Your task to perform on an android device: Add logitech g903 to the cart on amazon.com, then select checkout. Image 0: 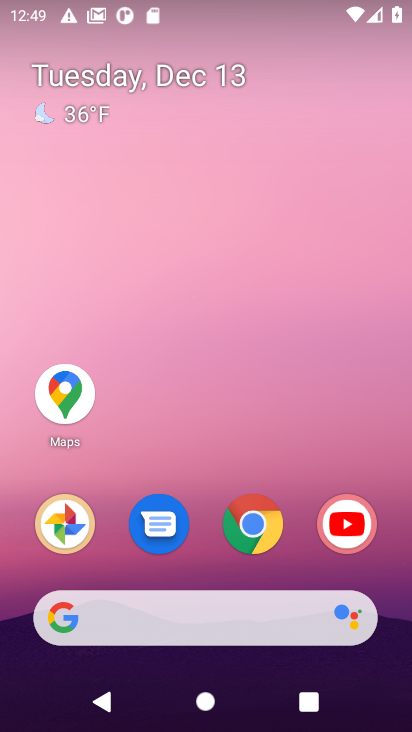
Step 0: click (257, 528)
Your task to perform on an android device: Add logitech g903 to the cart on amazon.com, then select checkout. Image 1: 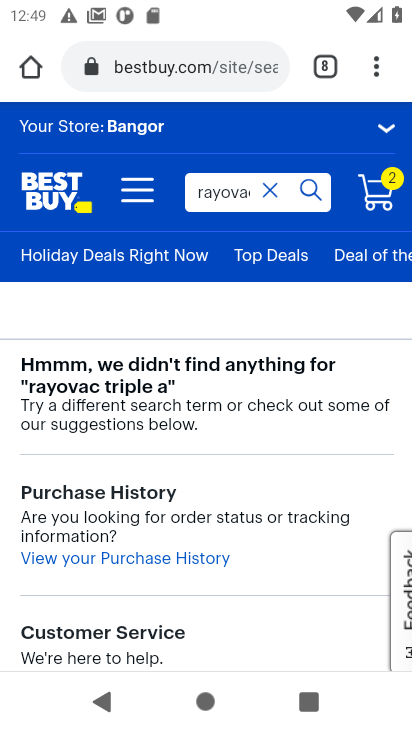
Step 1: click (146, 75)
Your task to perform on an android device: Add logitech g903 to the cart on amazon.com, then select checkout. Image 2: 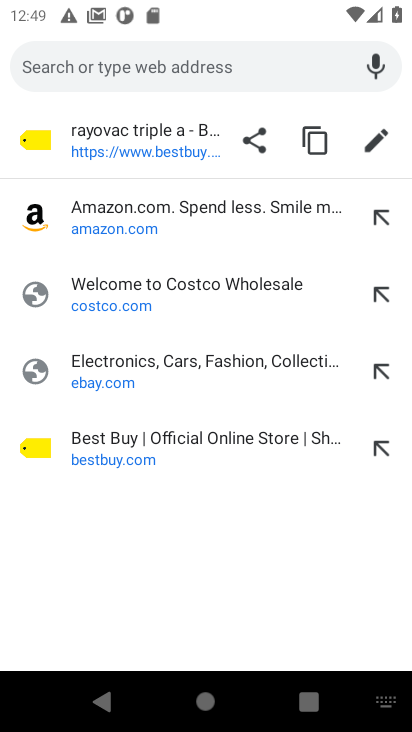
Step 2: click (98, 228)
Your task to perform on an android device: Add logitech g903 to the cart on amazon.com, then select checkout. Image 3: 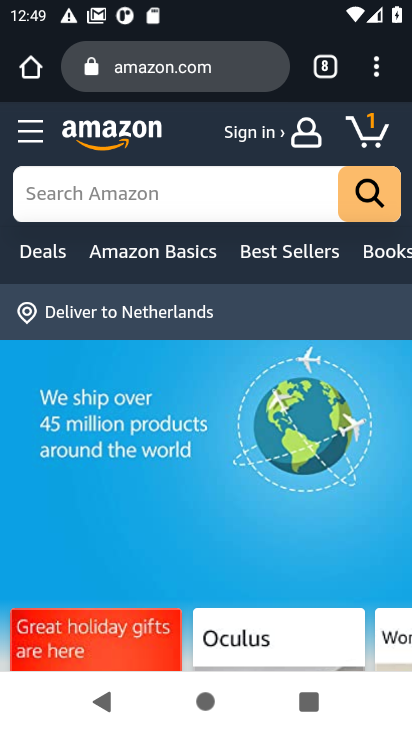
Step 3: click (76, 192)
Your task to perform on an android device: Add logitech g903 to the cart on amazon.com, then select checkout. Image 4: 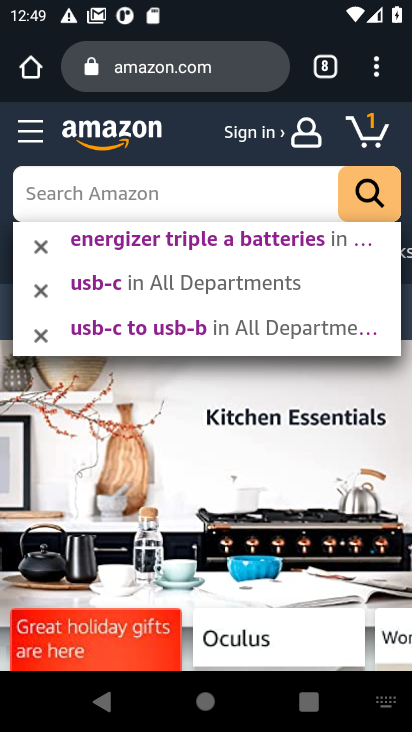
Step 4: type "logitech g903"
Your task to perform on an android device: Add logitech g903 to the cart on amazon.com, then select checkout. Image 5: 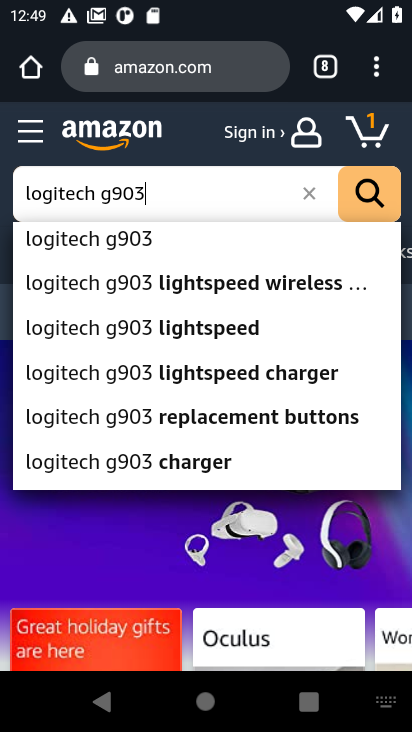
Step 5: click (129, 237)
Your task to perform on an android device: Add logitech g903 to the cart on amazon.com, then select checkout. Image 6: 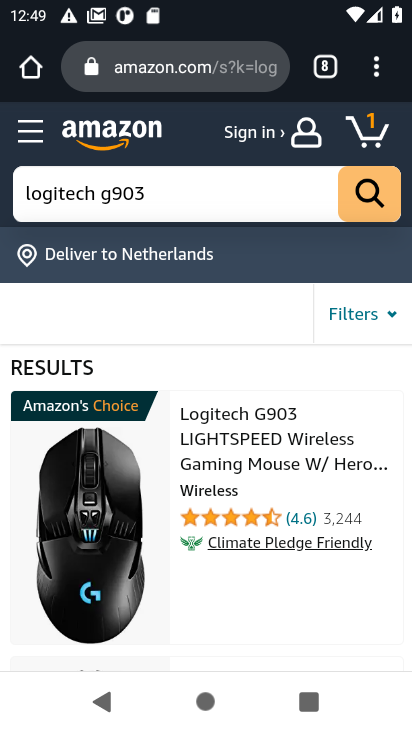
Step 6: drag from (190, 560) to (159, 268)
Your task to perform on an android device: Add logitech g903 to the cart on amazon.com, then select checkout. Image 7: 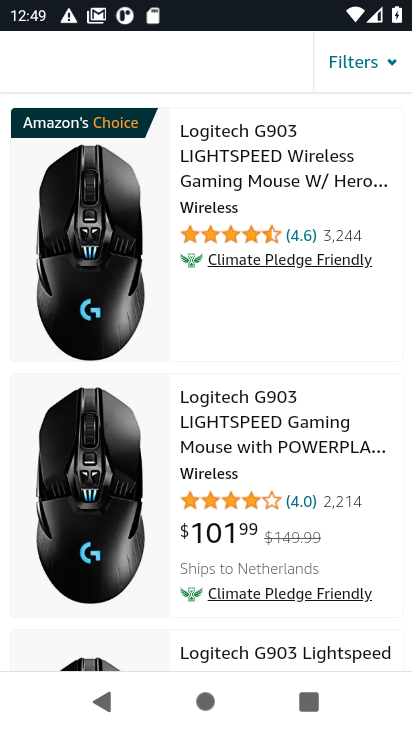
Step 7: drag from (183, 508) to (174, 360)
Your task to perform on an android device: Add logitech g903 to the cart on amazon.com, then select checkout. Image 8: 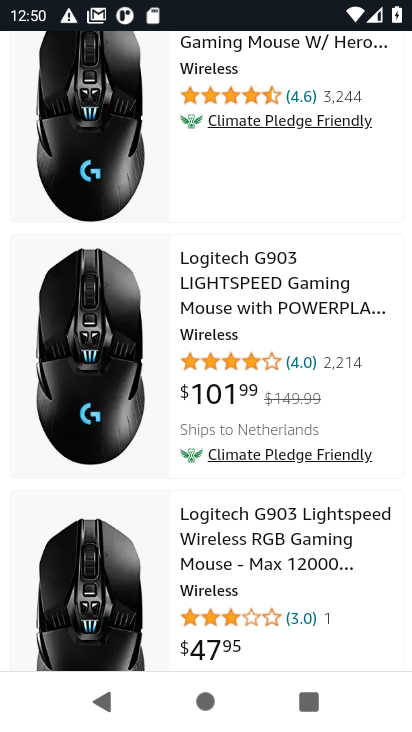
Step 8: click (250, 288)
Your task to perform on an android device: Add logitech g903 to the cart on amazon.com, then select checkout. Image 9: 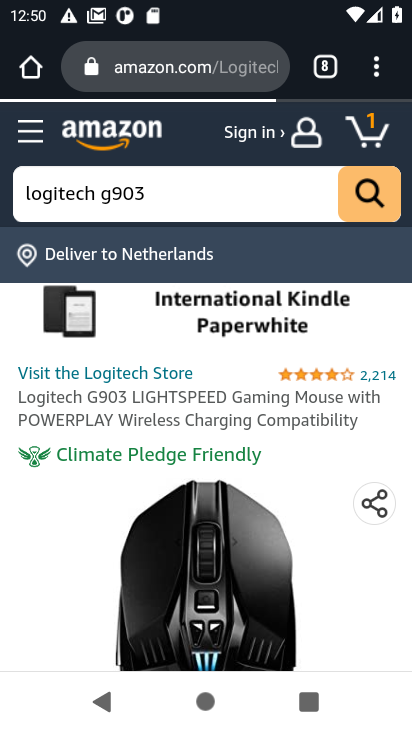
Step 9: drag from (210, 535) to (189, 242)
Your task to perform on an android device: Add logitech g903 to the cart on amazon.com, then select checkout. Image 10: 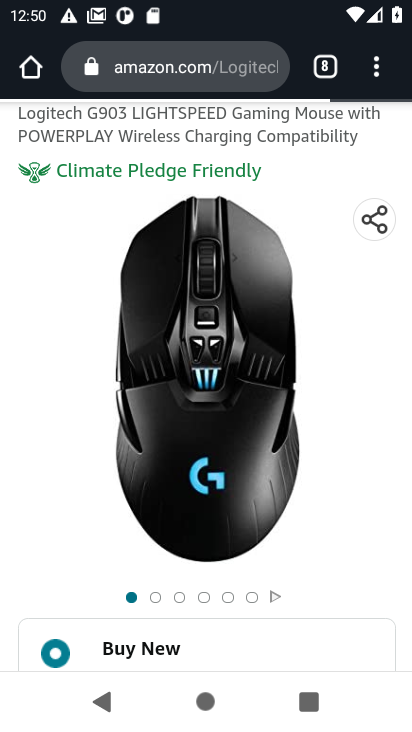
Step 10: drag from (192, 504) to (185, 172)
Your task to perform on an android device: Add logitech g903 to the cart on amazon.com, then select checkout. Image 11: 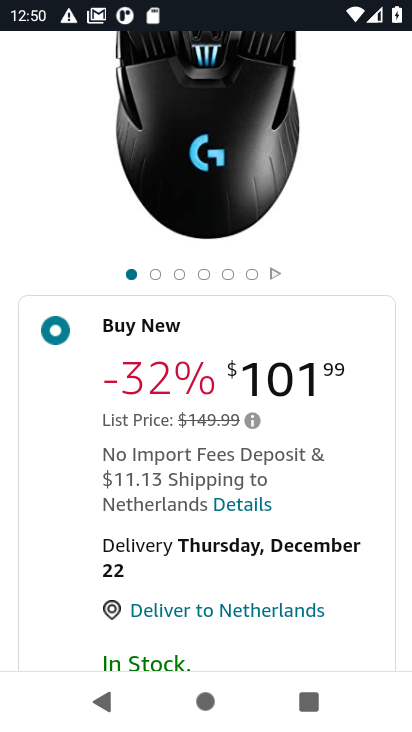
Step 11: drag from (192, 481) to (194, 177)
Your task to perform on an android device: Add logitech g903 to the cart on amazon.com, then select checkout. Image 12: 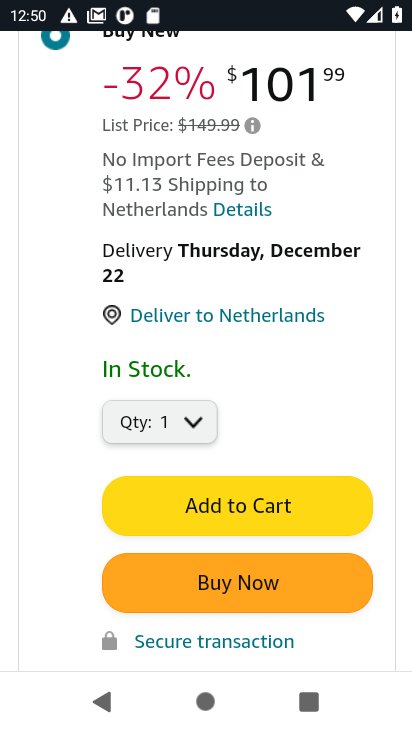
Step 12: click (224, 505)
Your task to perform on an android device: Add logitech g903 to the cart on amazon.com, then select checkout. Image 13: 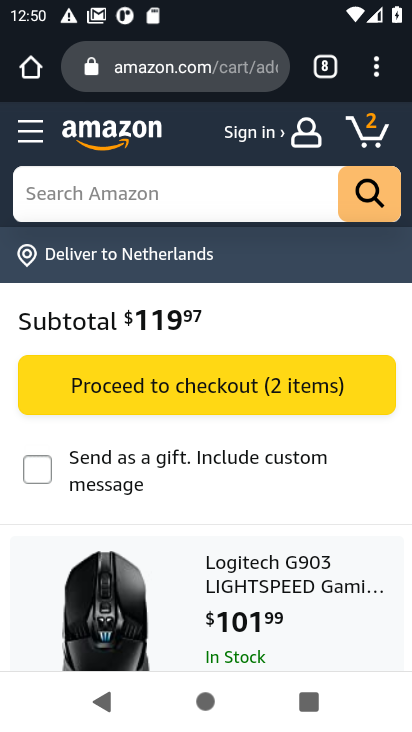
Step 13: click (209, 385)
Your task to perform on an android device: Add logitech g903 to the cart on amazon.com, then select checkout. Image 14: 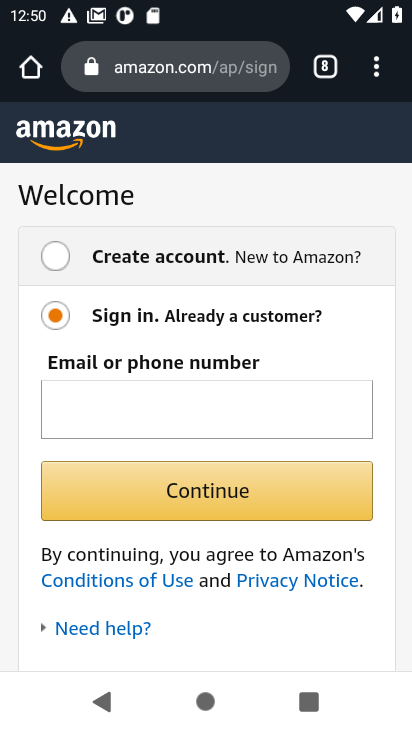
Step 14: task complete